Your task to perform on an android device: turn off wifi Image 0: 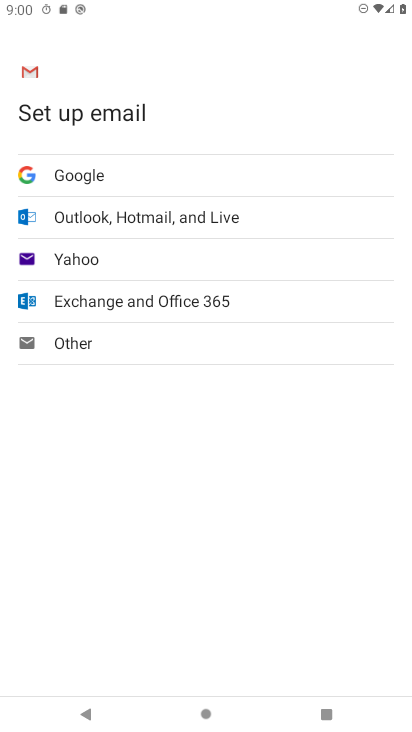
Step 0: press back button
Your task to perform on an android device: turn off wifi Image 1: 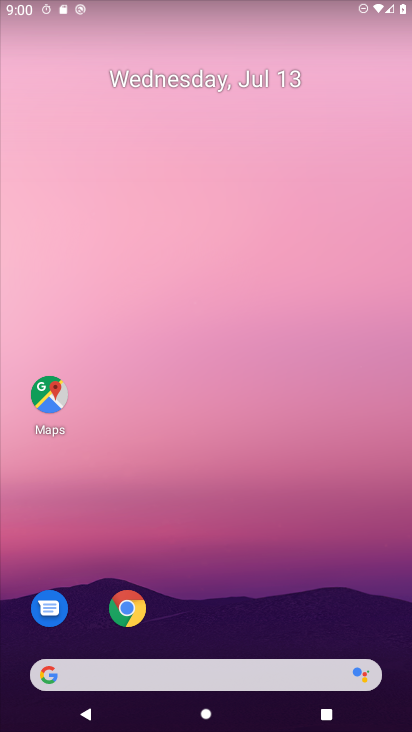
Step 1: drag from (271, 567) to (246, 282)
Your task to perform on an android device: turn off wifi Image 2: 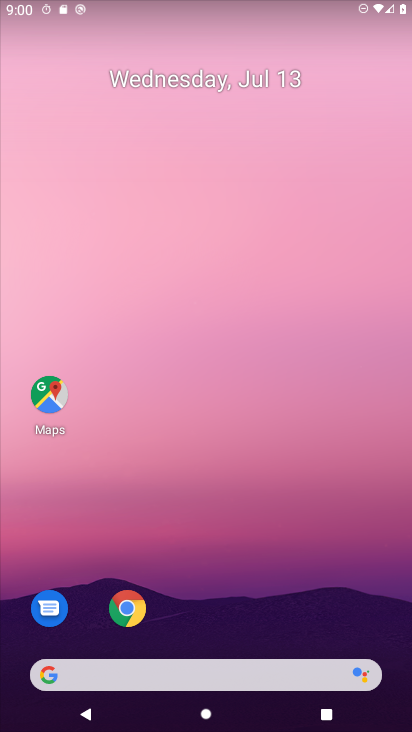
Step 2: drag from (261, 647) to (184, 51)
Your task to perform on an android device: turn off wifi Image 3: 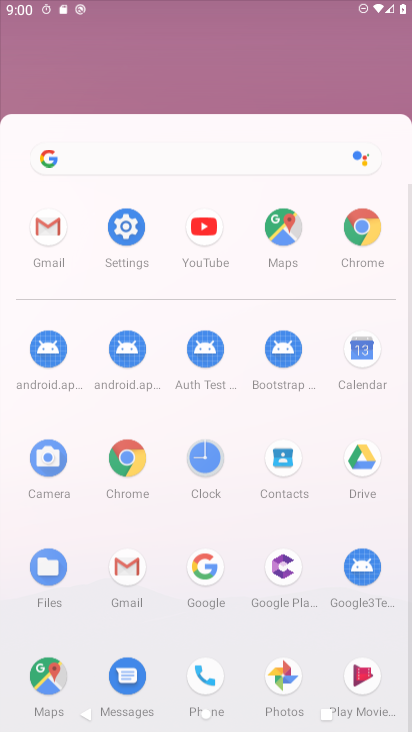
Step 3: drag from (232, 523) to (210, 95)
Your task to perform on an android device: turn off wifi Image 4: 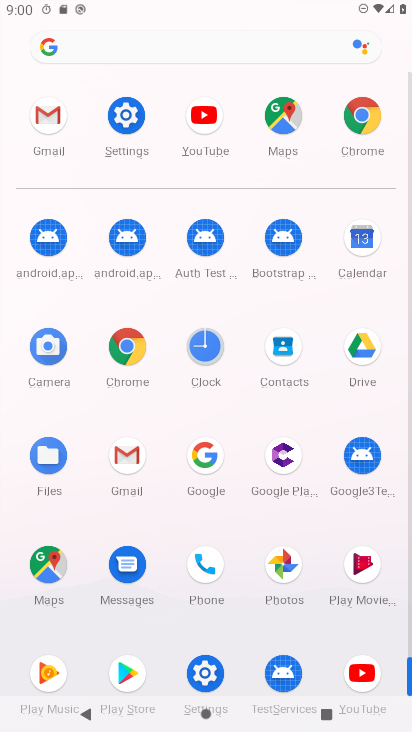
Step 4: click (137, 106)
Your task to perform on an android device: turn off wifi Image 5: 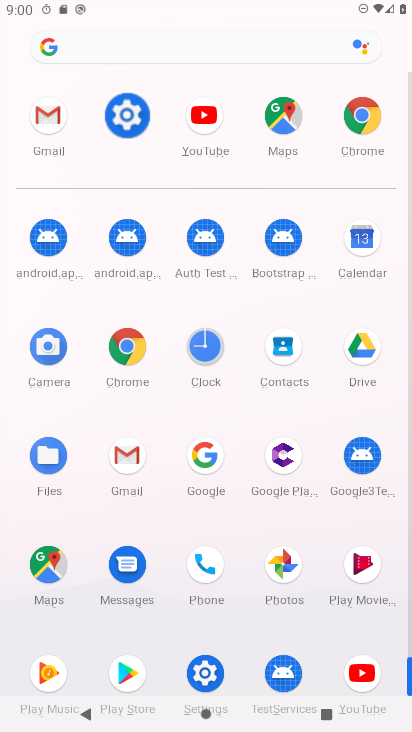
Step 5: click (136, 108)
Your task to perform on an android device: turn off wifi Image 6: 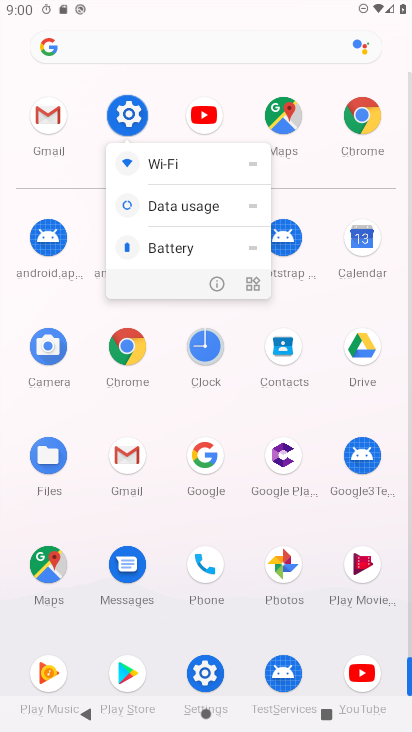
Step 6: click (135, 108)
Your task to perform on an android device: turn off wifi Image 7: 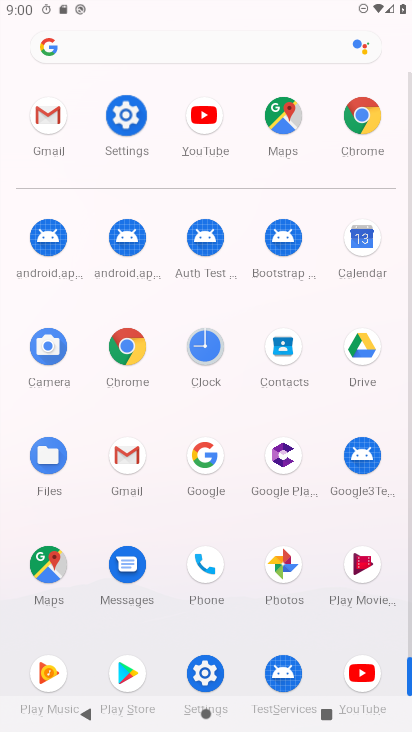
Step 7: click (138, 108)
Your task to perform on an android device: turn off wifi Image 8: 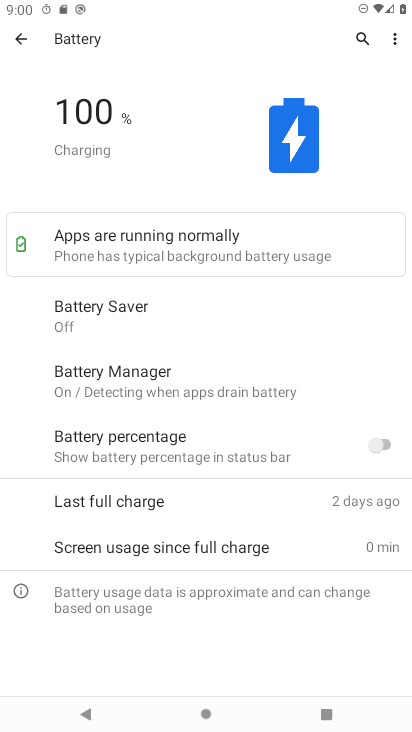
Step 8: click (20, 34)
Your task to perform on an android device: turn off wifi Image 9: 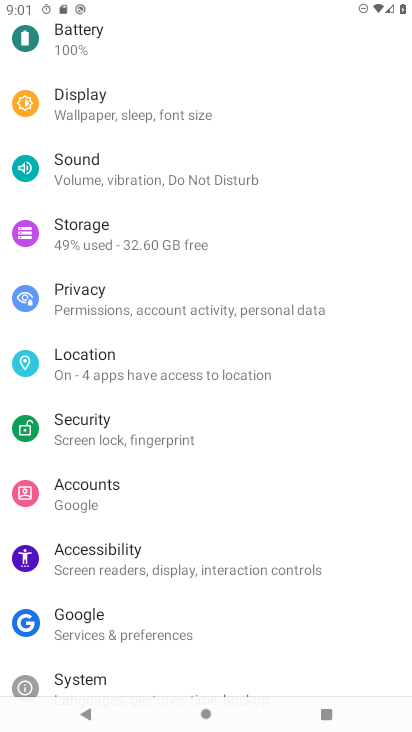
Step 9: drag from (101, 136) to (128, 510)
Your task to perform on an android device: turn off wifi Image 10: 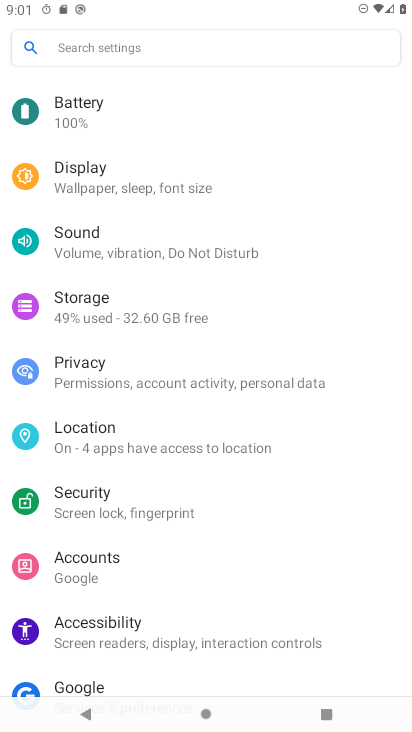
Step 10: drag from (129, 192) to (135, 583)
Your task to perform on an android device: turn off wifi Image 11: 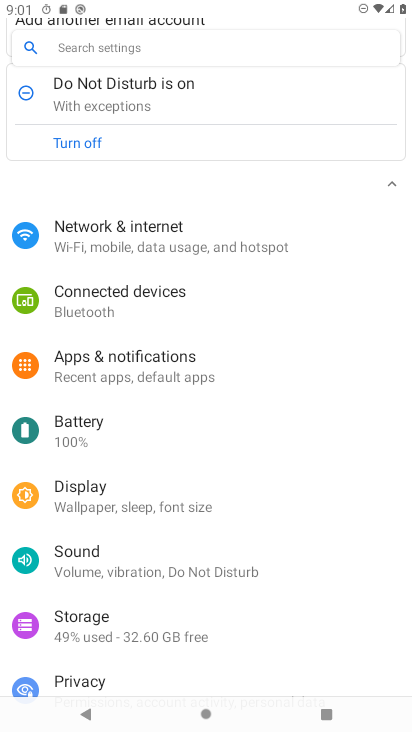
Step 11: click (132, 225)
Your task to perform on an android device: turn off wifi Image 12: 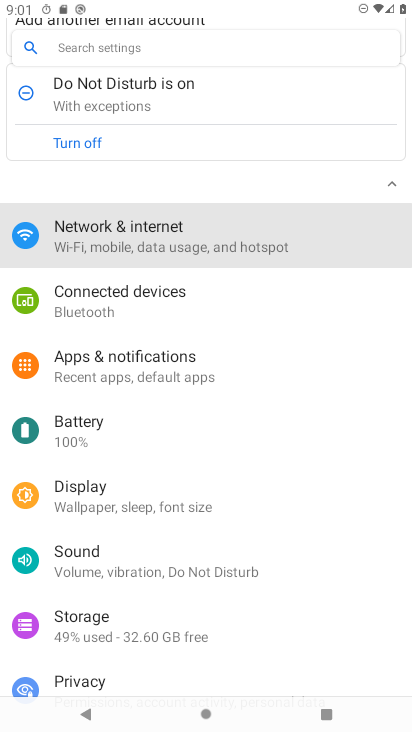
Step 12: click (132, 225)
Your task to perform on an android device: turn off wifi Image 13: 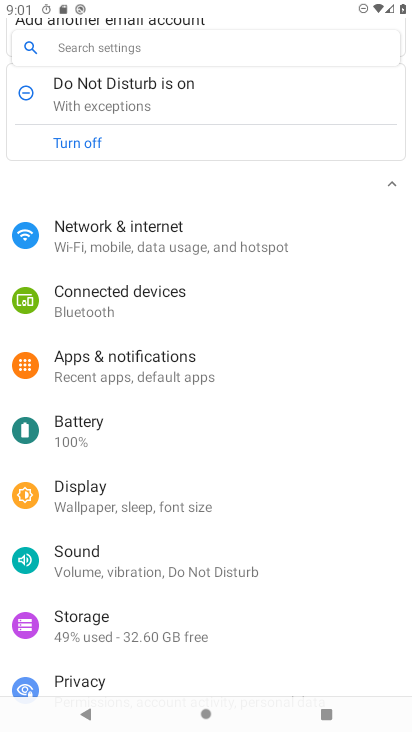
Step 13: click (132, 225)
Your task to perform on an android device: turn off wifi Image 14: 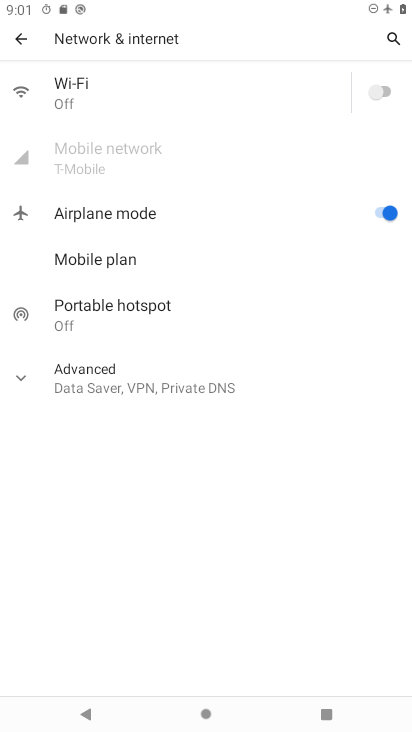
Step 14: task complete